Your task to perform on an android device: turn pop-ups on in chrome Image 0: 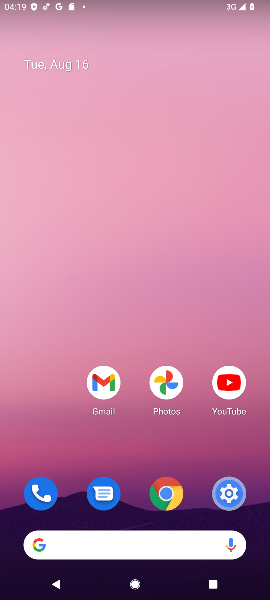
Step 0: press home button
Your task to perform on an android device: turn pop-ups on in chrome Image 1: 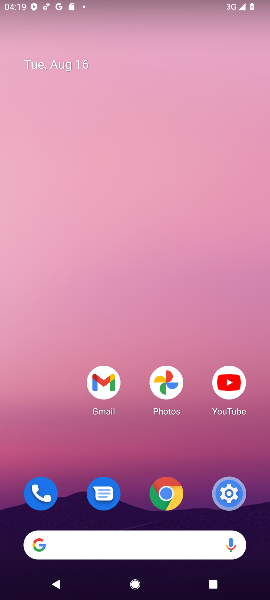
Step 1: drag from (69, 492) to (111, 103)
Your task to perform on an android device: turn pop-ups on in chrome Image 2: 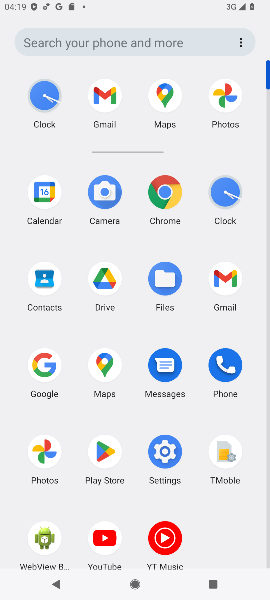
Step 2: click (170, 186)
Your task to perform on an android device: turn pop-ups on in chrome Image 3: 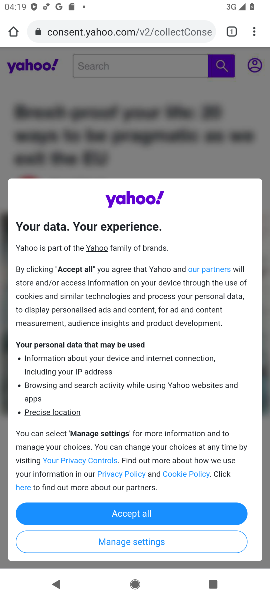
Step 3: click (253, 29)
Your task to perform on an android device: turn pop-ups on in chrome Image 4: 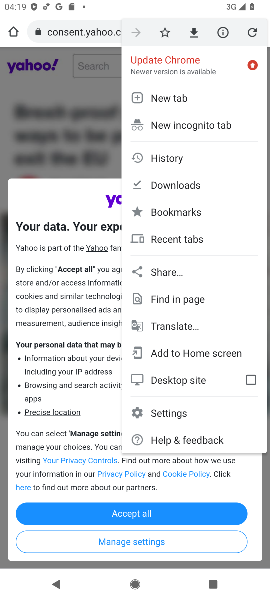
Step 4: click (190, 409)
Your task to perform on an android device: turn pop-ups on in chrome Image 5: 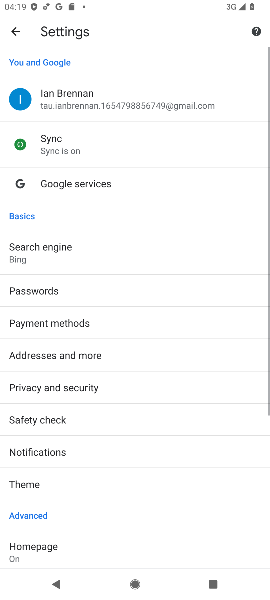
Step 5: drag from (190, 432) to (203, 318)
Your task to perform on an android device: turn pop-ups on in chrome Image 6: 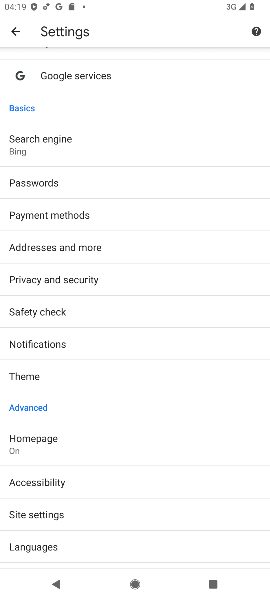
Step 6: drag from (205, 404) to (215, 350)
Your task to perform on an android device: turn pop-ups on in chrome Image 7: 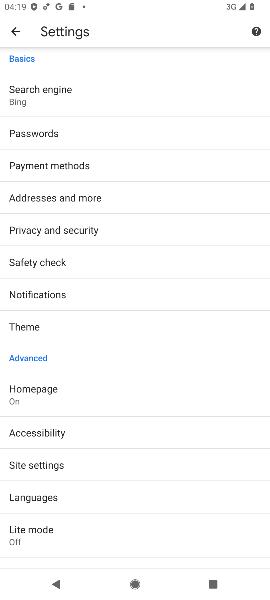
Step 7: drag from (176, 442) to (178, 287)
Your task to perform on an android device: turn pop-ups on in chrome Image 8: 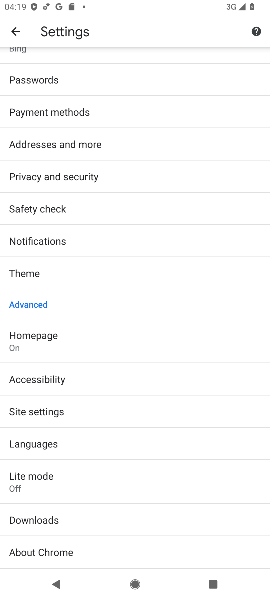
Step 8: click (158, 410)
Your task to perform on an android device: turn pop-ups on in chrome Image 9: 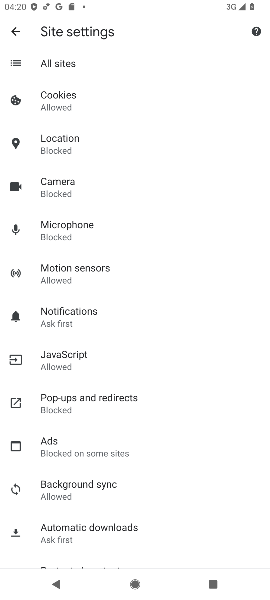
Step 9: click (127, 402)
Your task to perform on an android device: turn pop-ups on in chrome Image 10: 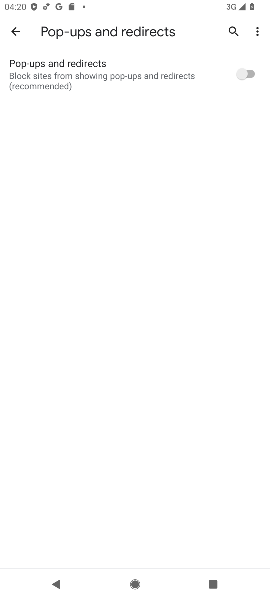
Step 10: click (242, 74)
Your task to perform on an android device: turn pop-ups on in chrome Image 11: 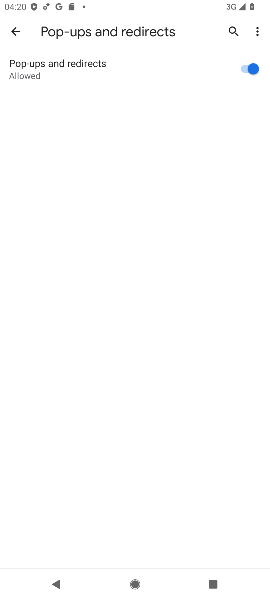
Step 11: task complete